Your task to perform on an android device: Is it going to rain today? Image 0: 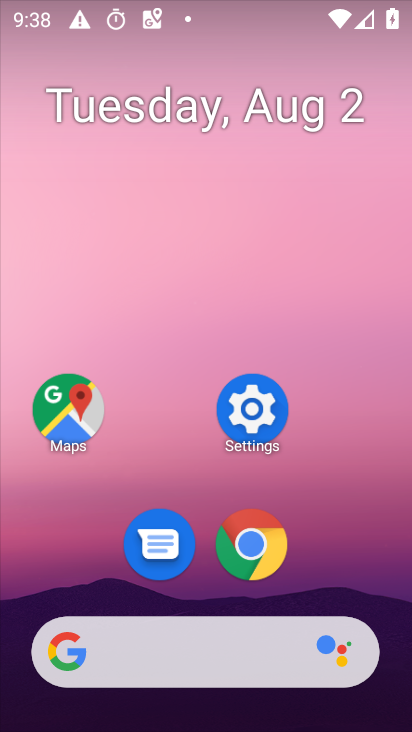
Step 0: click (158, 640)
Your task to perform on an android device: Is it going to rain today? Image 1: 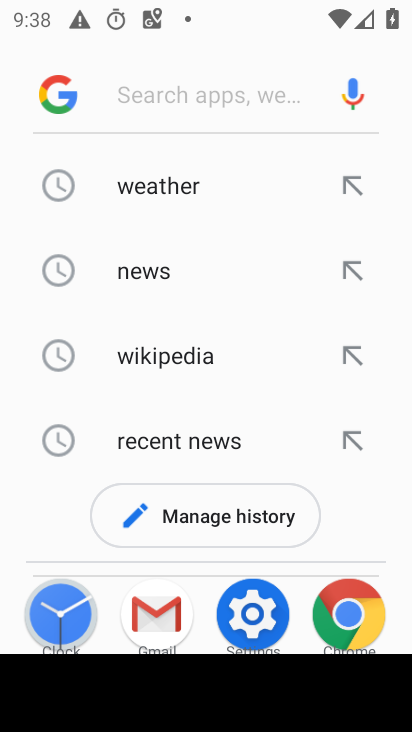
Step 1: click (166, 185)
Your task to perform on an android device: Is it going to rain today? Image 2: 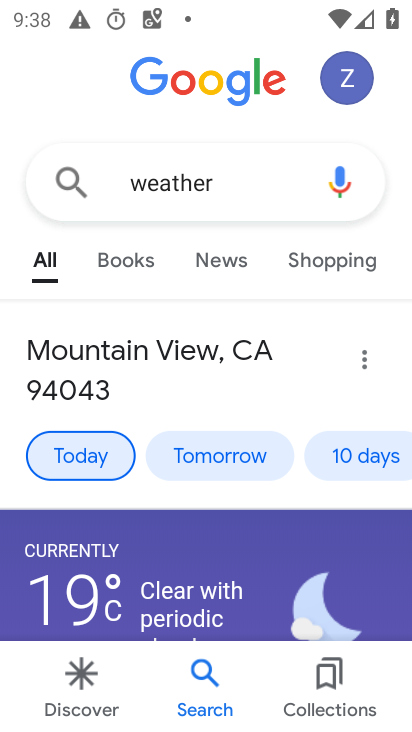
Step 2: task complete